Your task to perform on an android device: Check the weather Image 0: 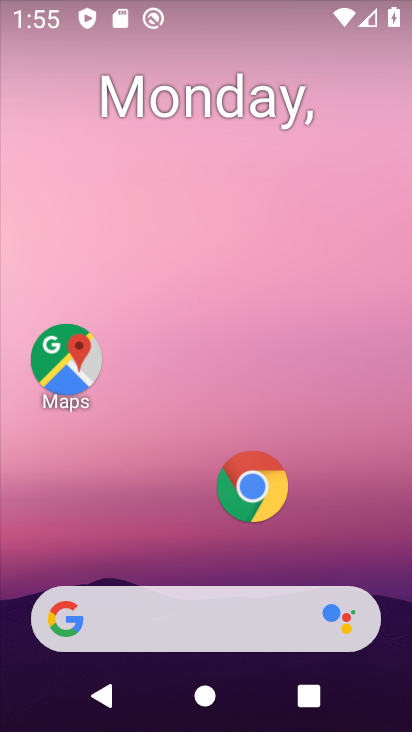
Step 0: drag from (159, 550) to (263, 36)
Your task to perform on an android device: Check the weather Image 1: 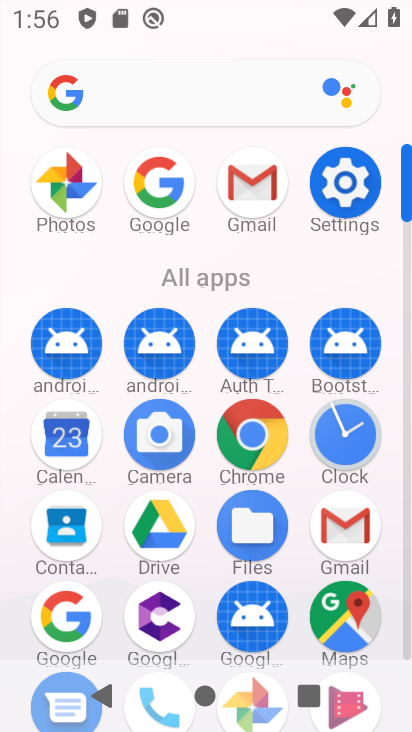
Step 1: click (104, 90)
Your task to perform on an android device: Check the weather Image 2: 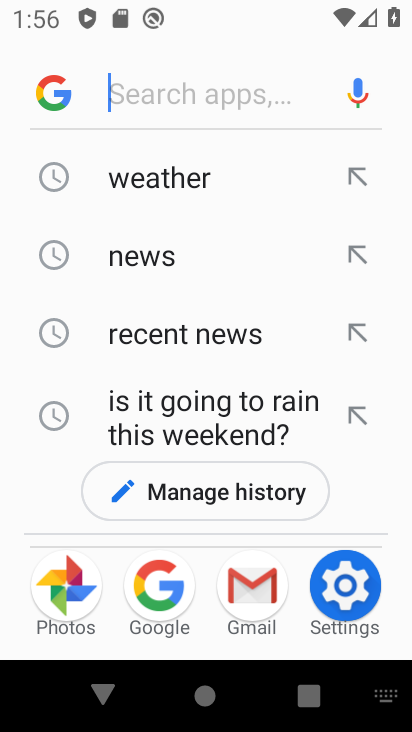
Step 2: type "weather"
Your task to perform on an android device: Check the weather Image 3: 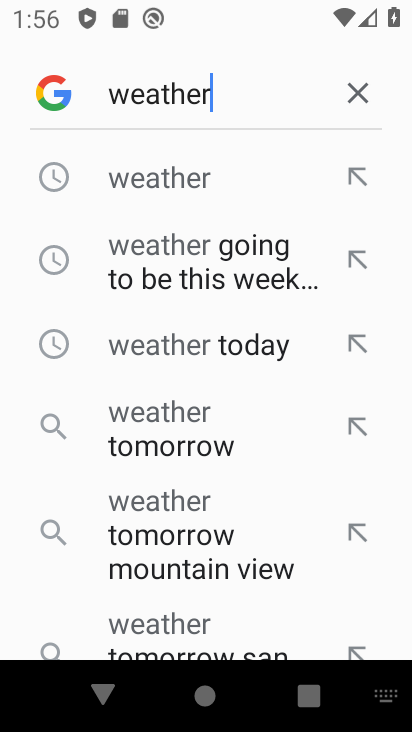
Step 3: click (195, 197)
Your task to perform on an android device: Check the weather Image 4: 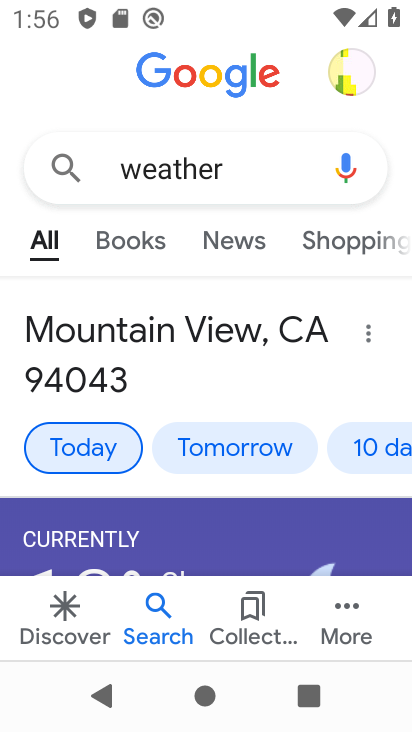
Step 4: task complete